Your task to perform on an android device: Go to eBay Image 0: 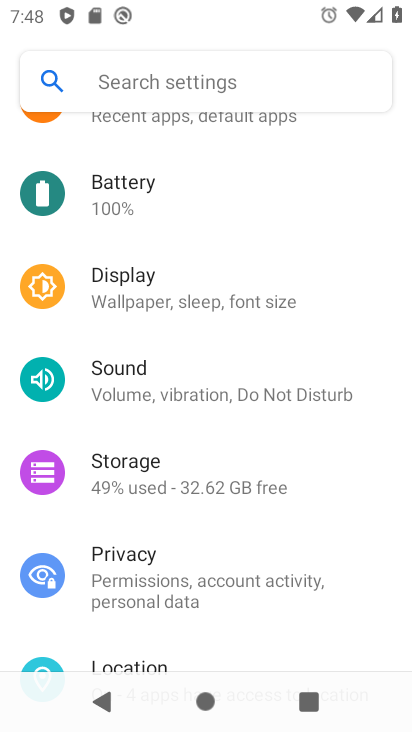
Step 0: press home button
Your task to perform on an android device: Go to eBay Image 1: 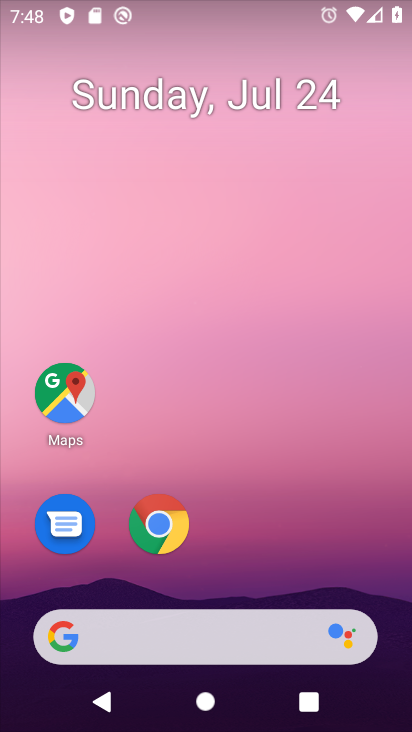
Step 1: click (225, 649)
Your task to perform on an android device: Go to eBay Image 2: 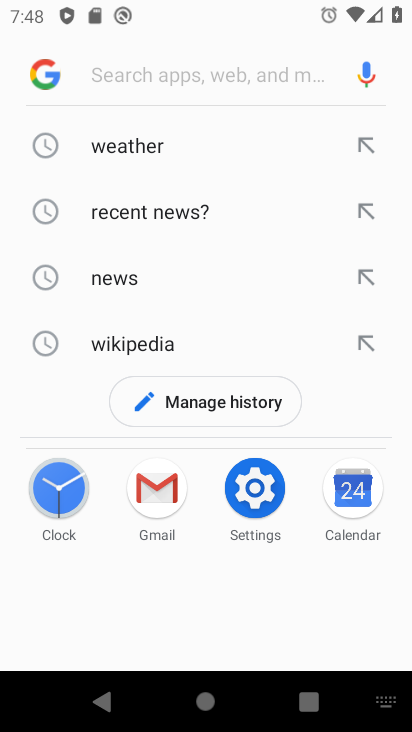
Step 2: type "ebay"
Your task to perform on an android device: Go to eBay Image 3: 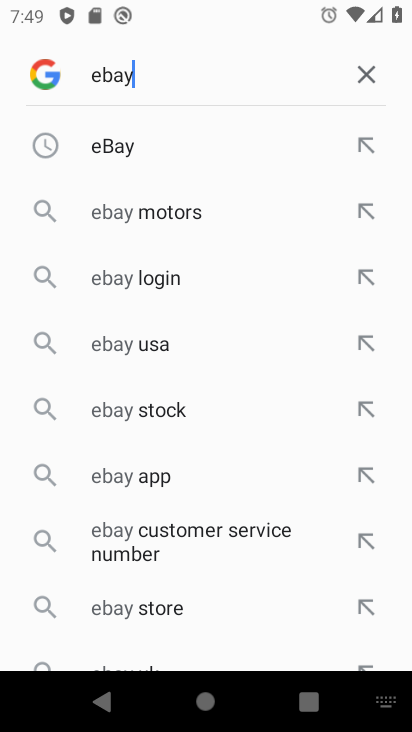
Step 3: click (120, 149)
Your task to perform on an android device: Go to eBay Image 4: 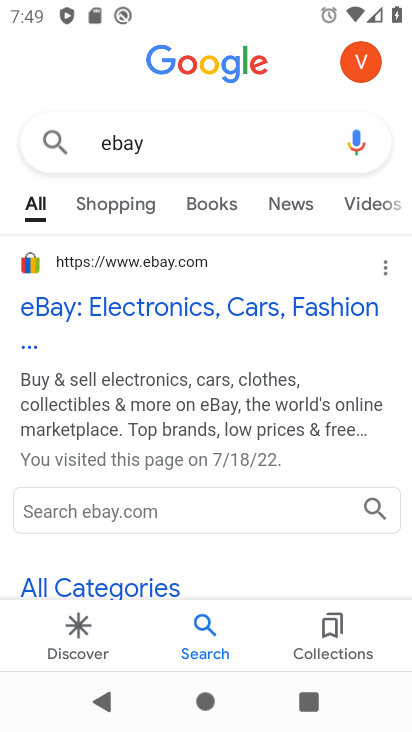
Step 4: click (65, 302)
Your task to perform on an android device: Go to eBay Image 5: 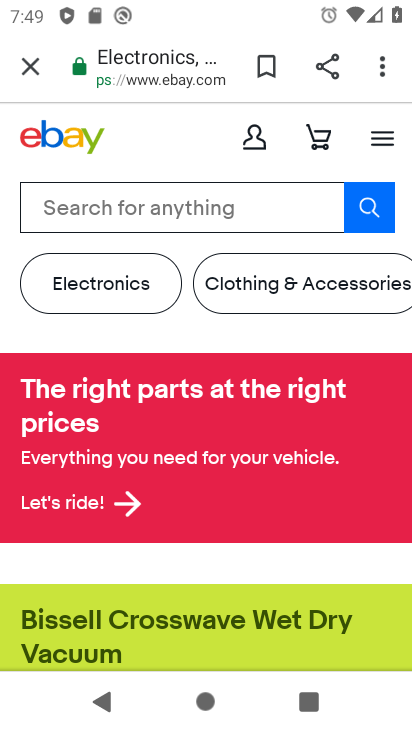
Step 5: task complete